Your task to perform on an android device: Show me popular videos on Youtube Image 0: 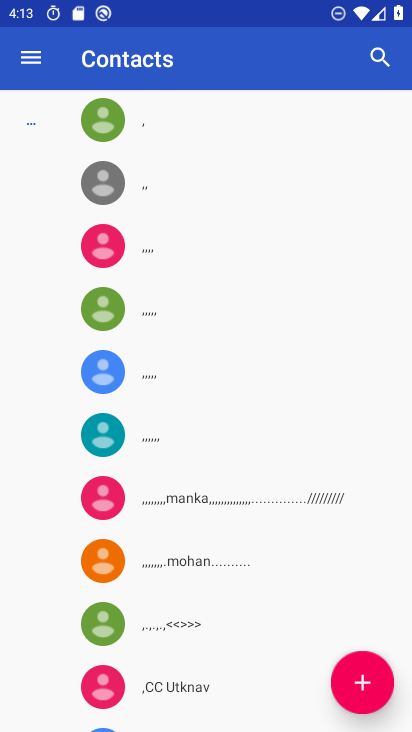
Step 0: press back button
Your task to perform on an android device: Show me popular videos on Youtube Image 1: 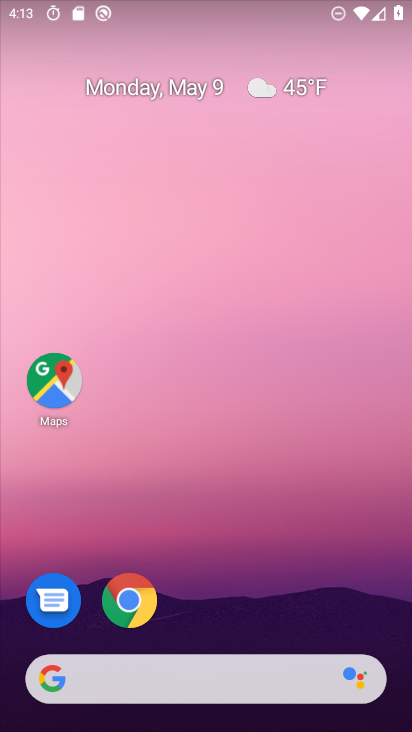
Step 1: drag from (276, 544) to (305, 58)
Your task to perform on an android device: Show me popular videos on Youtube Image 2: 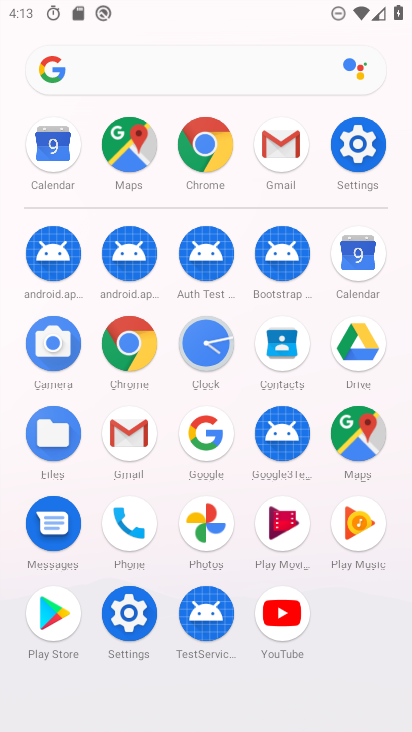
Step 2: click (275, 605)
Your task to perform on an android device: Show me popular videos on Youtube Image 3: 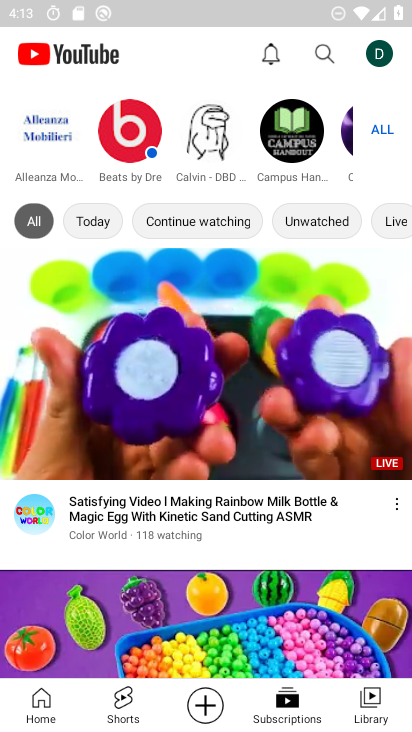
Step 3: click (34, 711)
Your task to perform on an android device: Show me popular videos on Youtube Image 4: 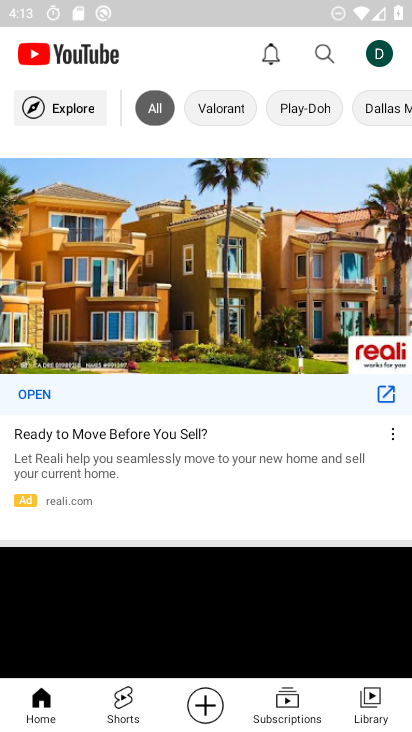
Step 4: click (82, 106)
Your task to perform on an android device: Show me popular videos on Youtube Image 5: 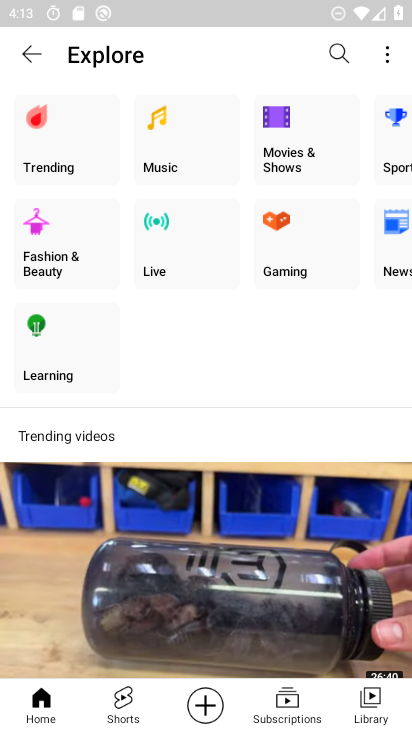
Step 5: click (72, 139)
Your task to perform on an android device: Show me popular videos on Youtube Image 6: 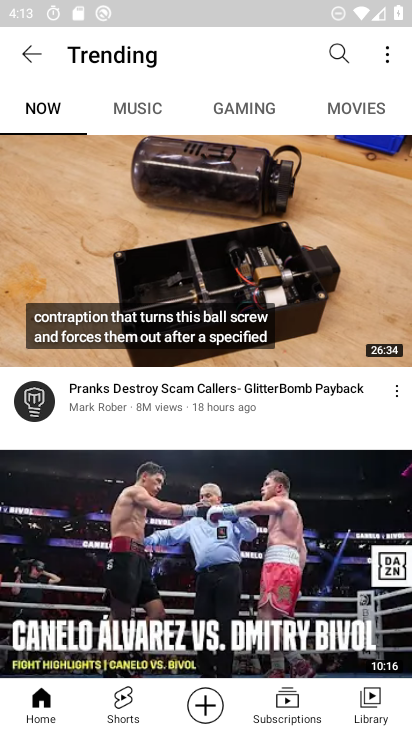
Step 6: drag from (197, 522) to (259, 209)
Your task to perform on an android device: Show me popular videos on Youtube Image 7: 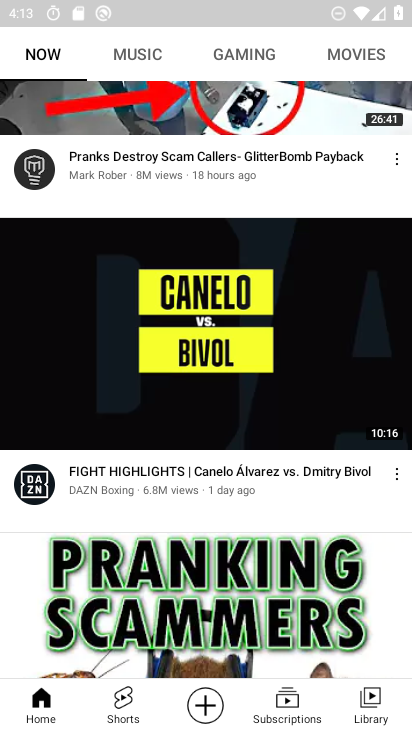
Step 7: drag from (244, 545) to (292, 178)
Your task to perform on an android device: Show me popular videos on Youtube Image 8: 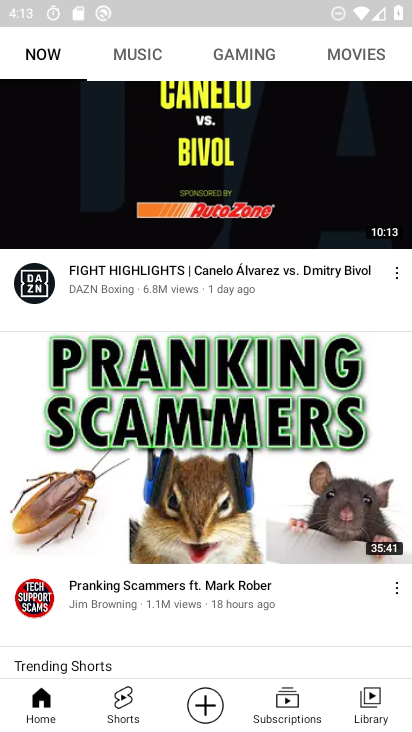
Step 8: drag from (289, 468) to (319, 148)
Your task to perform on an android device: Show me popular videos on Youtube Image 9: 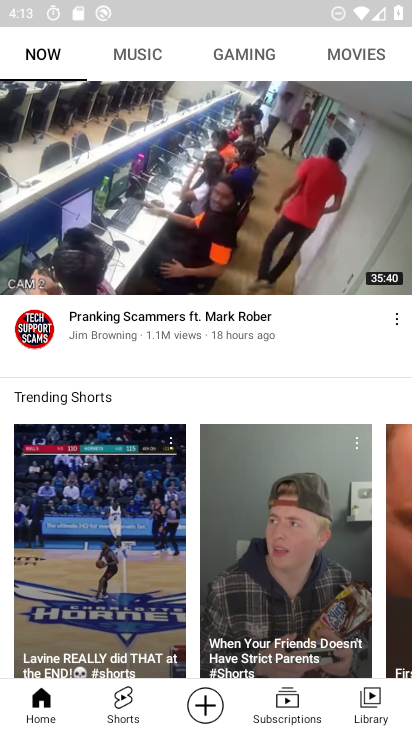
Step 9: click (150, 46)
Your task to perform on an android device: Show me popular videos on Youtube Image 10: 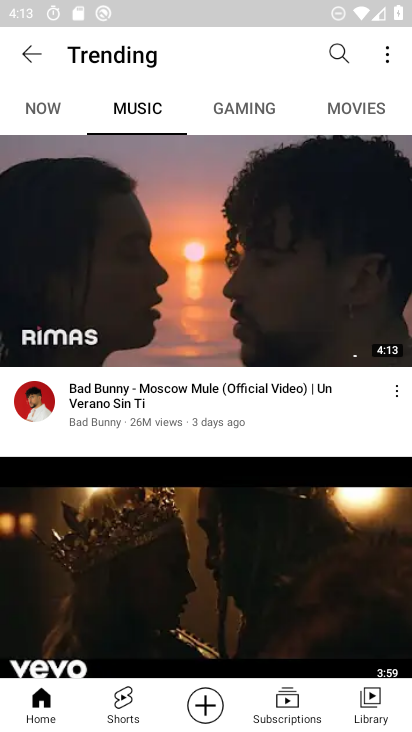
Step 10: drag from (213, 572) to (237, 180)
Your task to perform on an android device: Show me popular videos on Youtube Image 11: 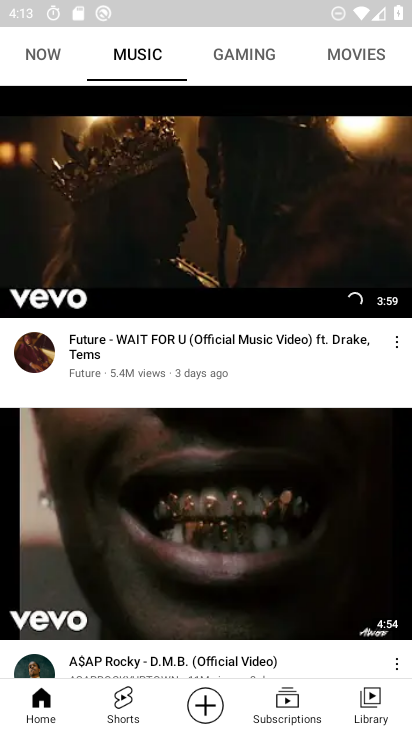
Step 11: drag from (236, 553) to (240, 188)
Your task to perform on an android device: Show me popular videos on Youtube Image 12: 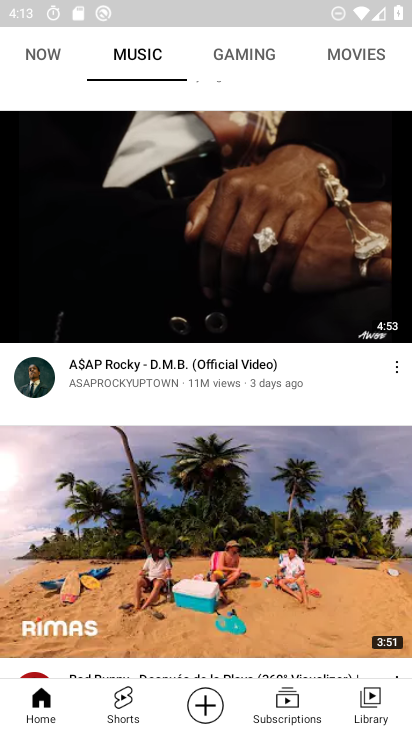
Step 12: click (237, 46)
Your task to perform on an android device: Show me popular videos on Youtube Image 13: 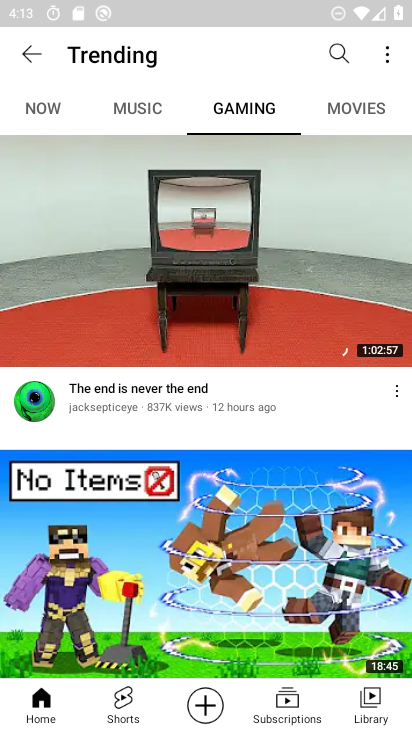
Step 13: drag from (268, 553) to (300, 196)
Your task to perform on an android device: Show me popular videos on Youtube Image 14: 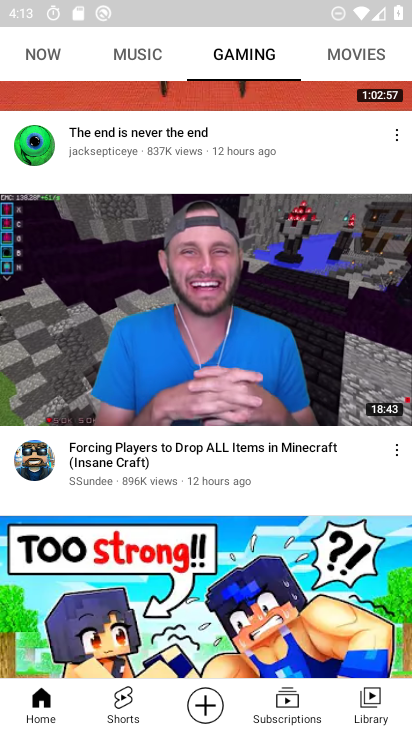
Step 14: click (359, 58)
Your task to perform on an android device: Show me popular videos on Youtube Image 15: 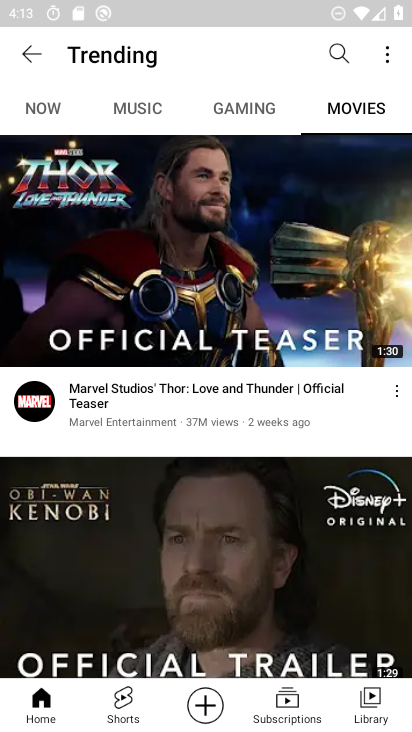
Step 15: drag from (283, 557) to (320, 240)
Your task to perform on an android device: Show me popular videos on Youtube Image 16: 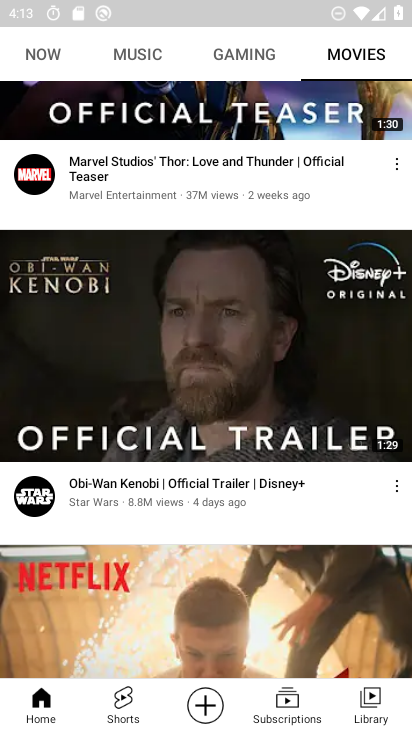
Step 16: drag from (248, 654) to (288, 221)
Your task to perform on an android device: Show me popular videos on Youtube Image 17: 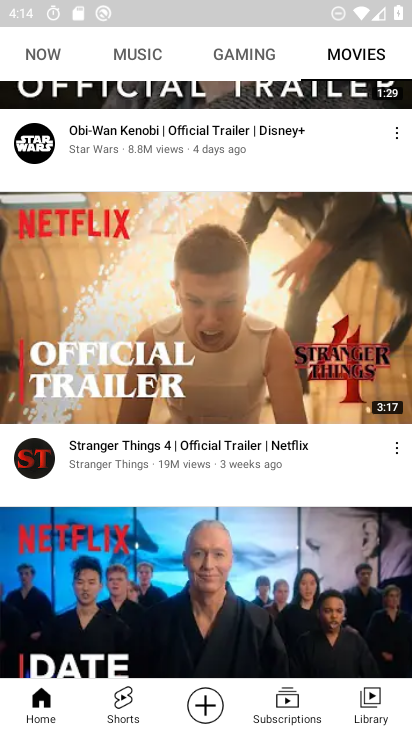
Step 17: click (51, 59)
Your task to perform on an android device: Show me popular videos on Youtube Image 18: 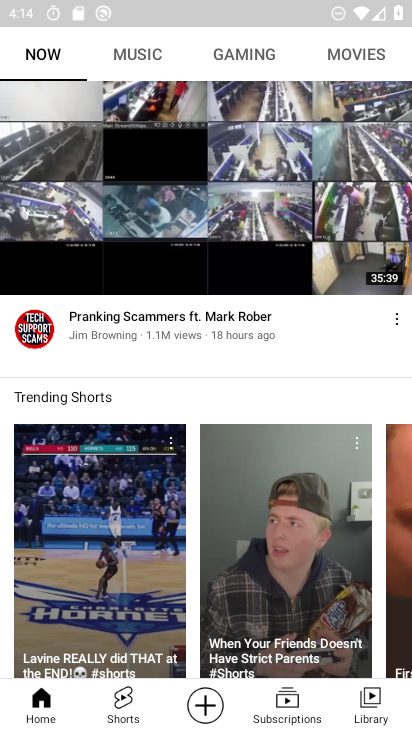
Step 18: task complete